Your task to perform on an android device: turn on sleep mode Image 0: 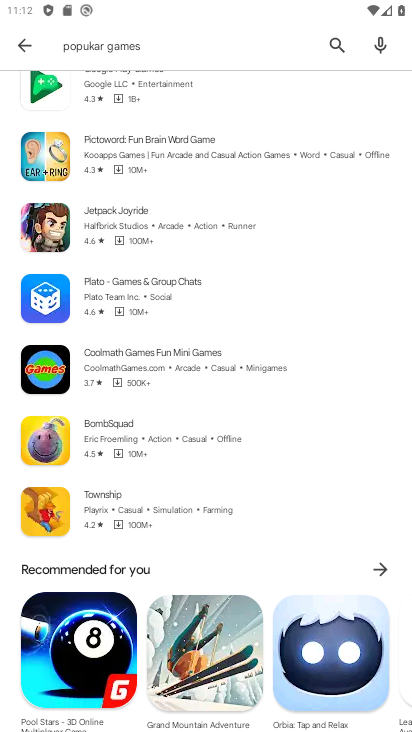
Step 0: press home button
Your task to perform on an android device: turn on sleep mode Image 1: 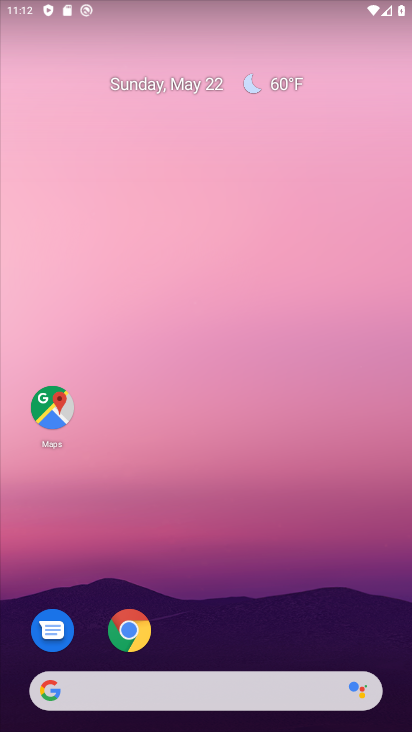
Step 1: drag from (222, 586) to (168, 114)
Your task to perform on an android device: turn on sleep mode Image 2: 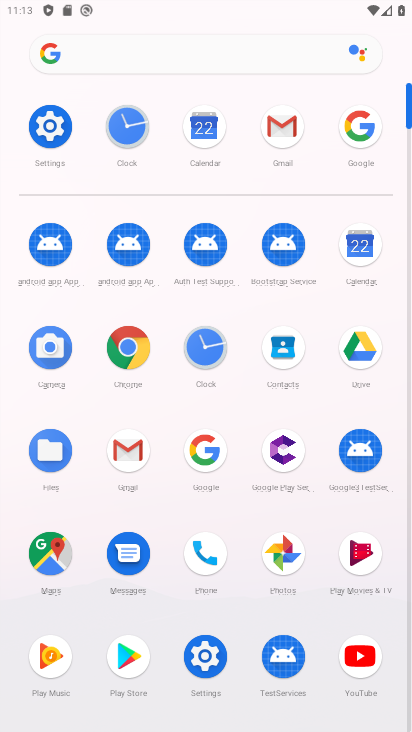
Step 2: click (51, 126)
Your task to perform on an android device: turn on sleep mode Image 3: 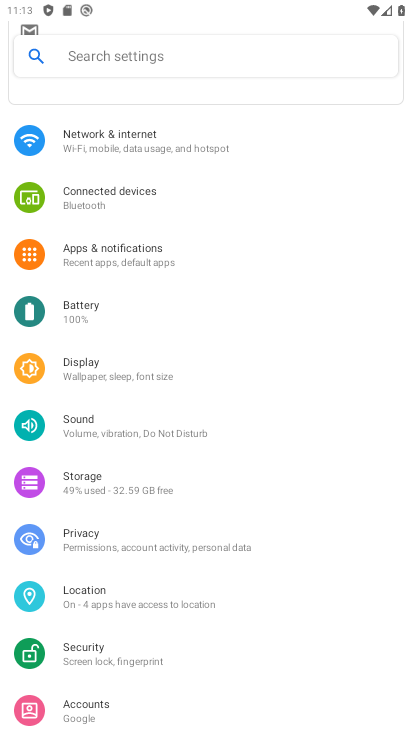
Step 3: drag from (183, 591) to (224, 490)
Your task to perform on an android device: turn on sleep mode Image 4: 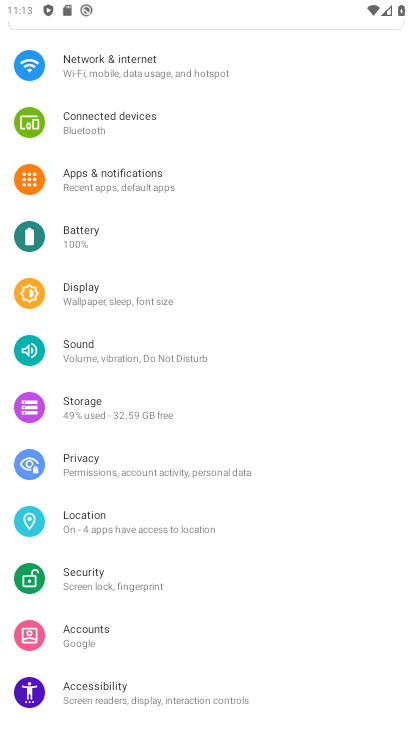
Step 4: drag from (186, 560) to (205, 462)
Your task to perform on an android device: turn on sleep mode Image 5: 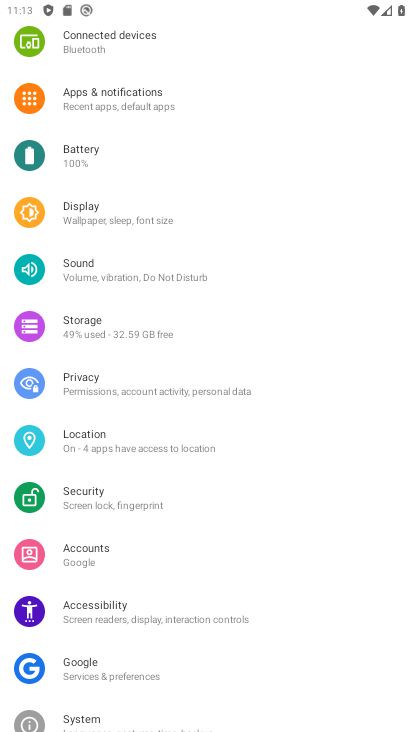
Step 5: click (124, 226)
Your task to perform on an android device: turn on sleep mode Image 6: 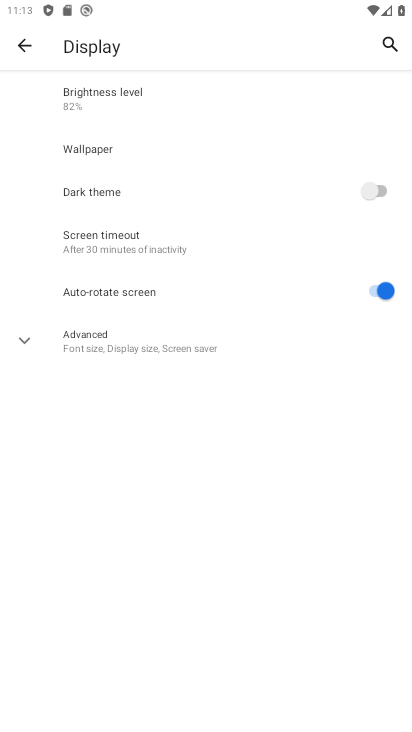
Step 6: click (106, 349)
Your task to perform on an android device: turn on sleep mode Image 7: 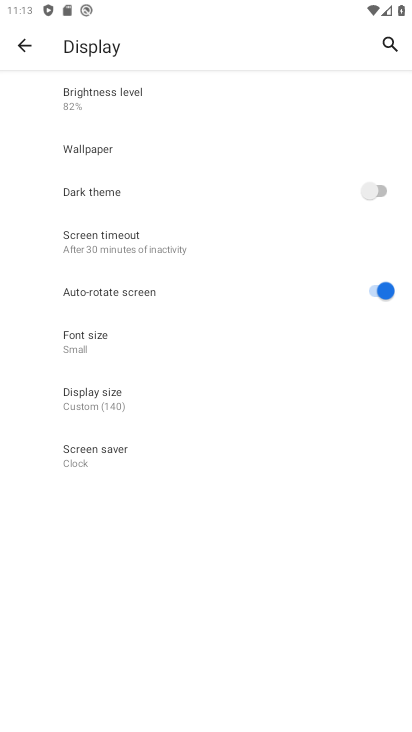
Step 7: click (103, 241)
Your task to perform on an android device: turn on sleep mode Image 8: 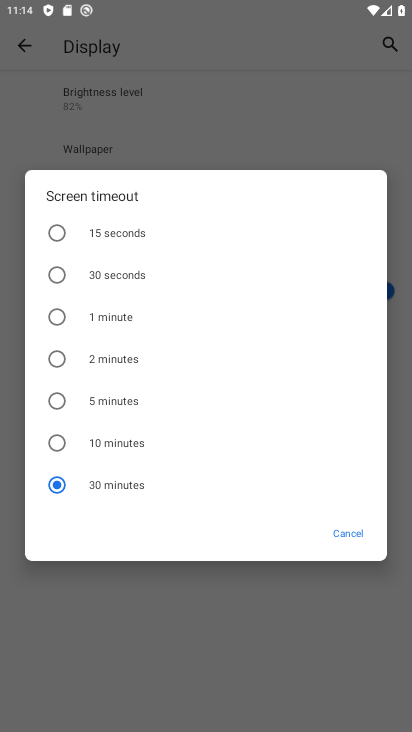
Step 8: task complete